Your task to perform on an android device: open chrome privacy settings Image 0: 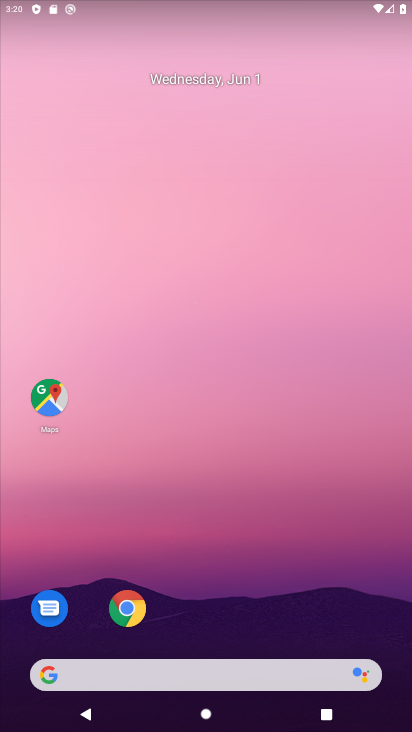
Step 0: click (136, 607)
Your task to perform on an android device: open chrome privacy settings Image 1: 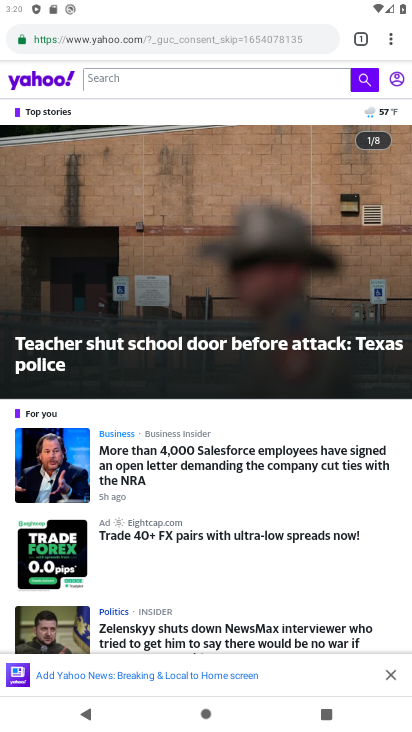
Step 1: click (390, 36)
Your task to perform on an android device: open chrome privacy settings Image 2: 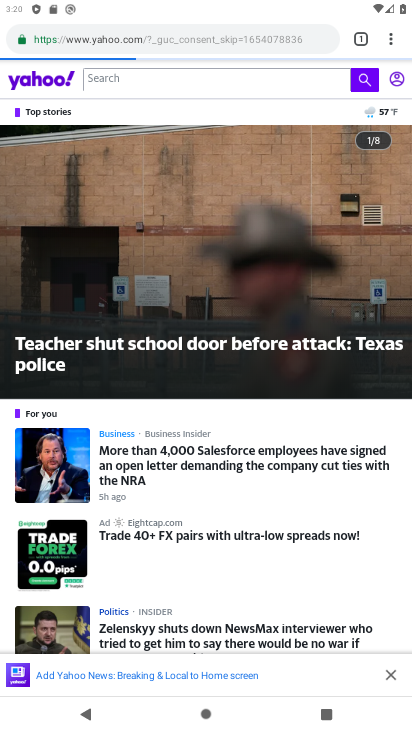
Step 2: drag from (389, 36) to (264, 475)
Your task to perform on an android device: open chrome privacy settings Image 3: 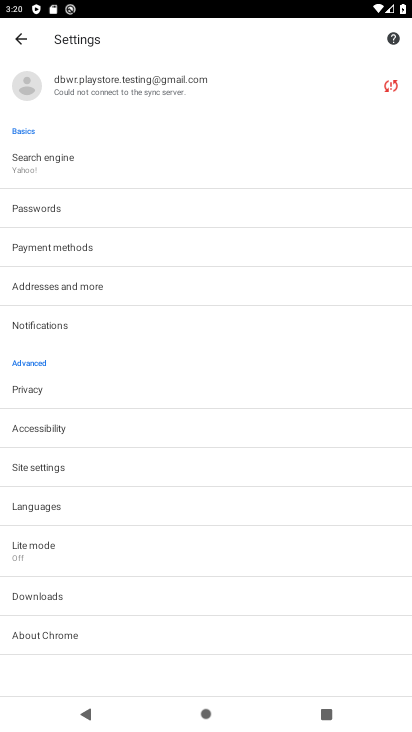
Step 3: click (54, 377)
Your task to perform on an android device: open chrome privacy settings Image 4: 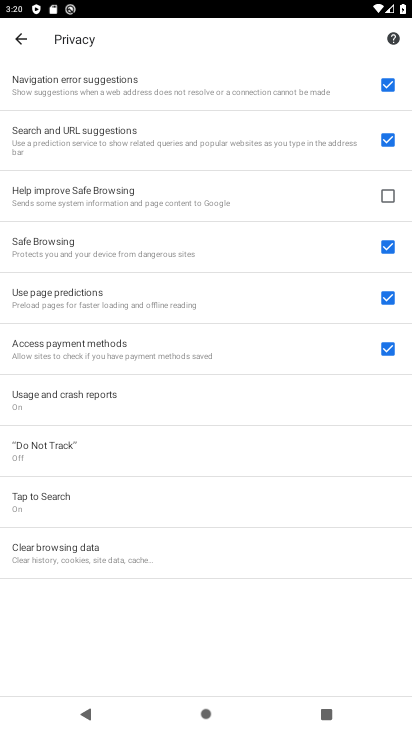
Step 4: task complete